Your task to perform on an android device: turn on the 24-hour format for clock Image 0: 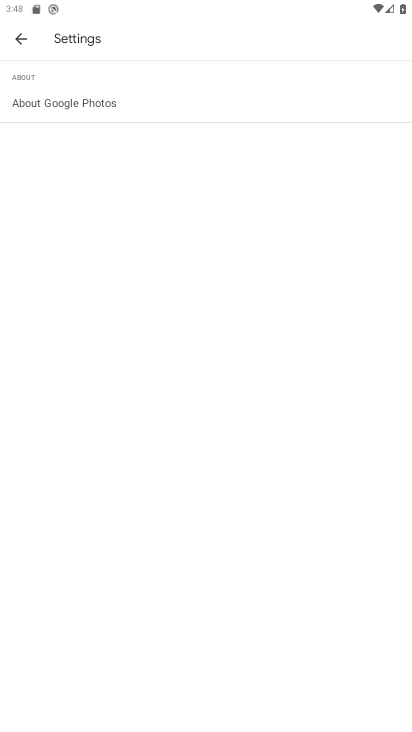
Step 0: press home button
Your task to perform on an android device: turn on the 24-hour format for clock Image 1: 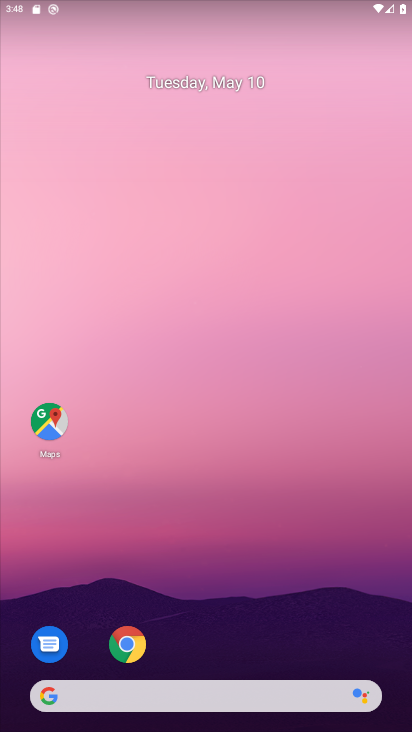
Step 1: drag from (220, 663) to (232, 55)
Your task to perform on an android device: turn on the 24-hour format for clock Image 2: 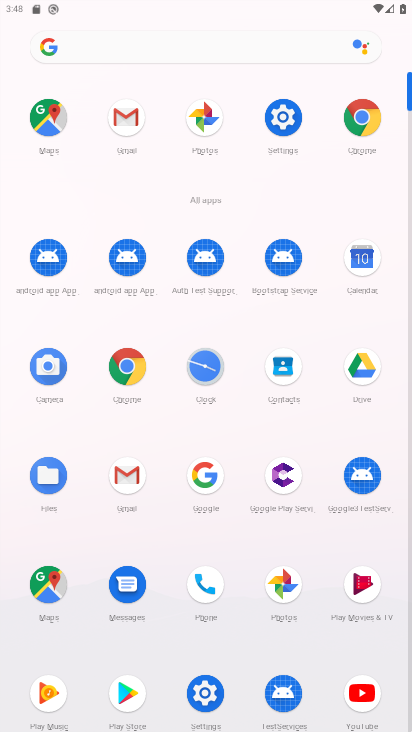
Step 2: click (204, 365)
Your task to perform on an android device: turn on the 24-hour format for clock Image 3: 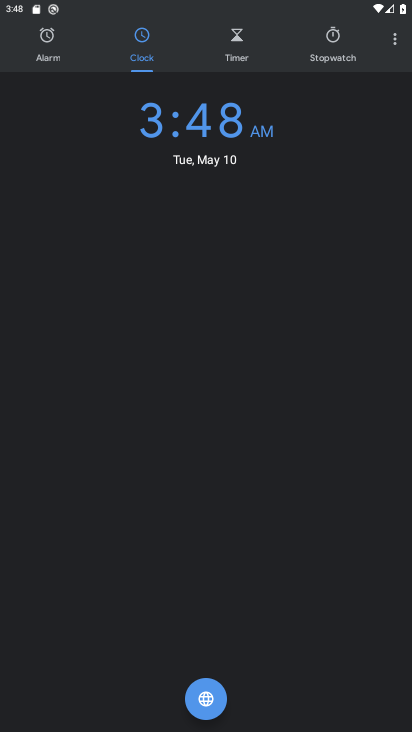
Step 3: click (391, 41)
Your task to perform on an android device: turn on the 24-hour format for clock Image 4: 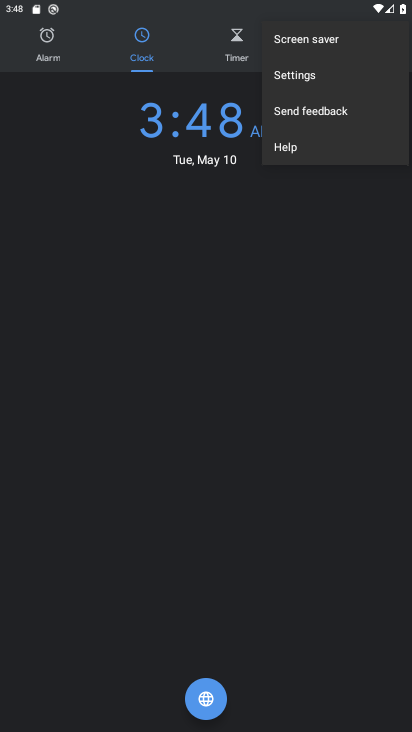
Step 4: click (322, 71)
Your task to perform on an android device: turn on the 24-hour format for clock Image 5: 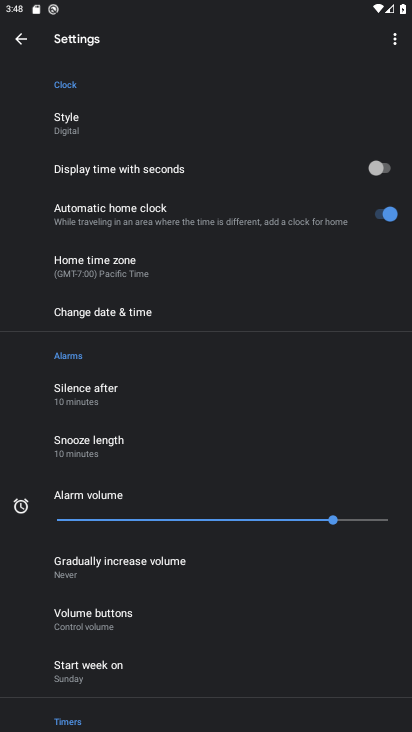
Step 5: click (178, 306)
Your task to perform on an android device: turn on the 24-hour format for clock Image 6: 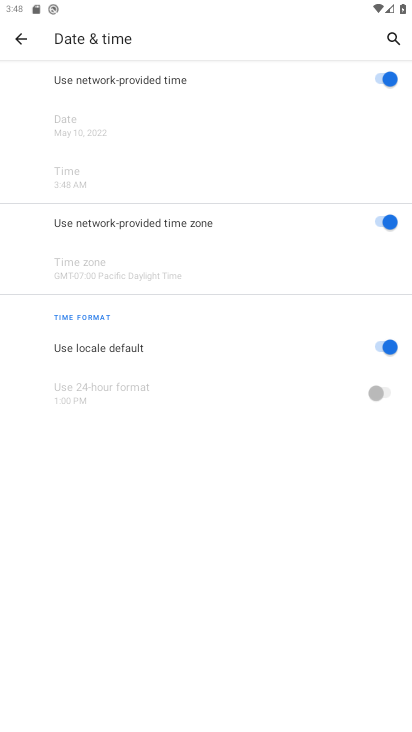
Step 6: click (383, 339)
Your task to perform on an android device: turn on the 24-hour format for clock Image 7: 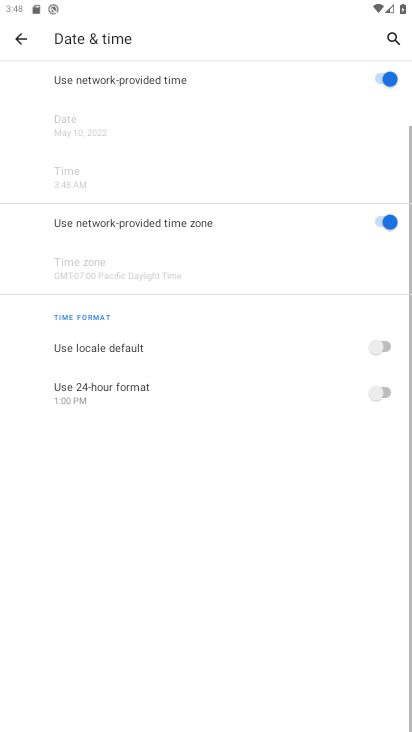
Step 7: click (380, 389)
Your task to perform on an android device: turn on the 24-hour format for clock Image 8: 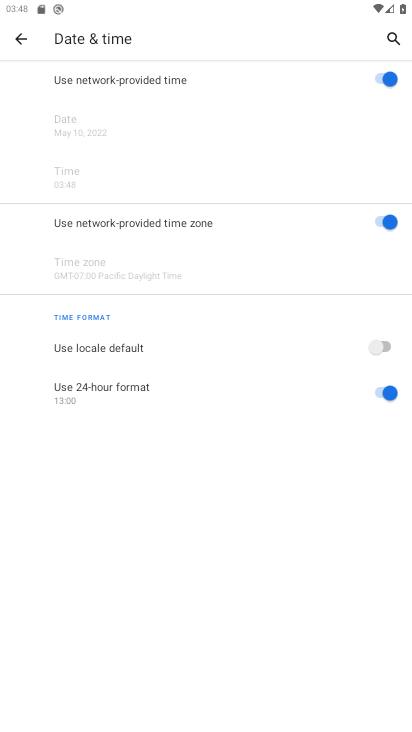
Step 8: task complete